Your task to perform on an android device: make emails show in primary in the gmail app Image 0: 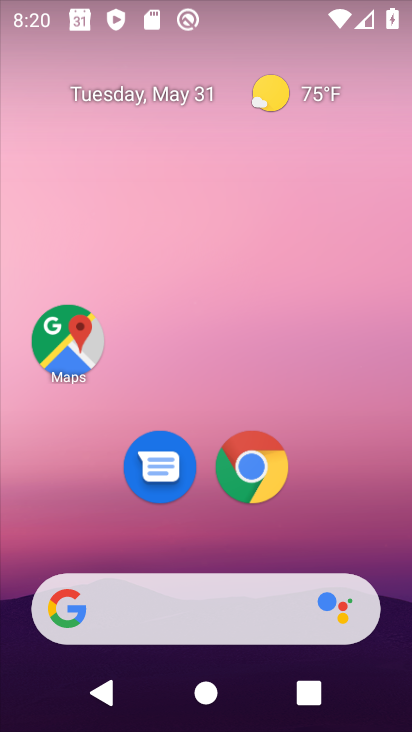
Step 0: drag from (205, 537) to (231, 102)
Your task to perform on an android device: make emails show in primary in the gmail app Image 1: 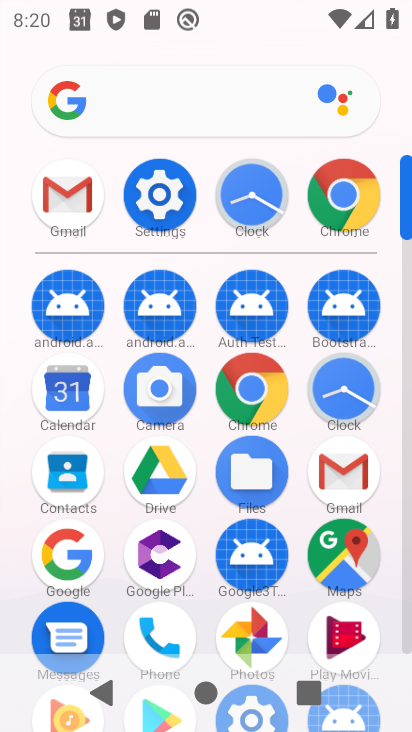
Step 1: click (350, 470)
Your task to perform on an android device: make emails show in primary in the gmail app Image 2: 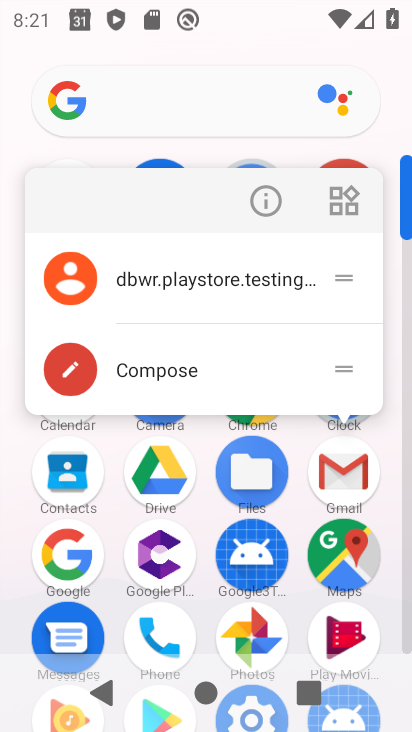
Step 2: click (259, 196)
Your task to perform on an android device: make emails show in primary in the gmail app Image 3: 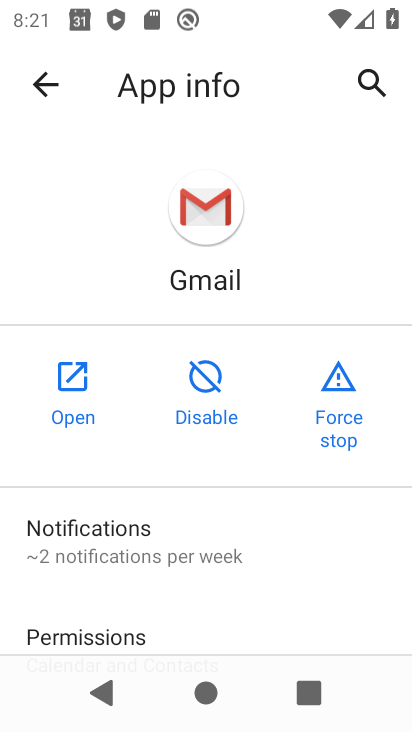
Step 3: click (91, 400)
Your task to perform on an android device: make emails show in primary in the gmail app Image 4: 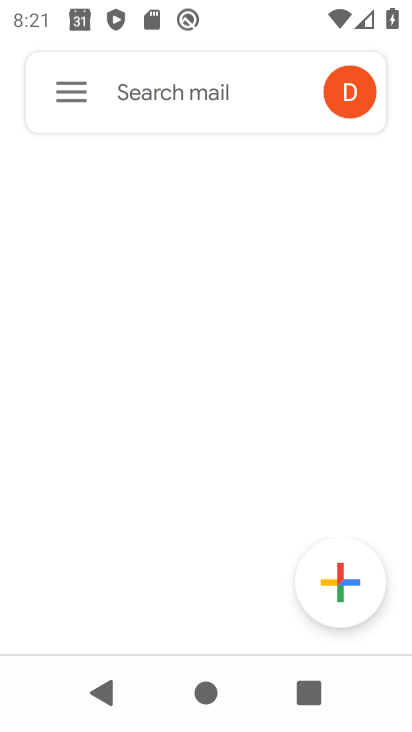
Step 4: click (68, 97)
Your task to perform on an android device: make emails show in primary in the gmail app Image 5: 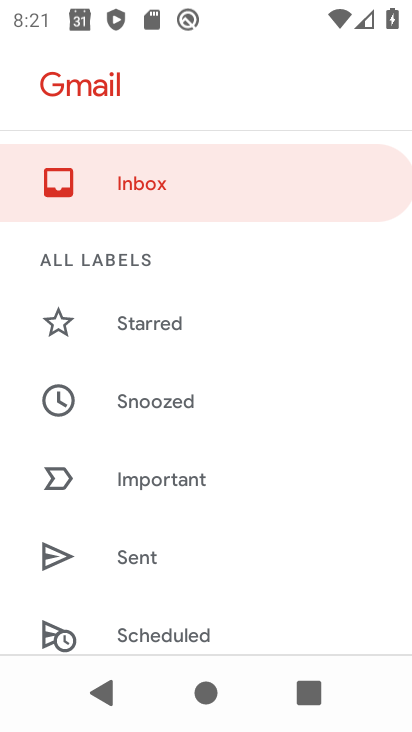
Step 5: drag from (195, 575) to (239, 152)
Your task to perform on an android device: make emails show in primary in the gmail app Image 6: 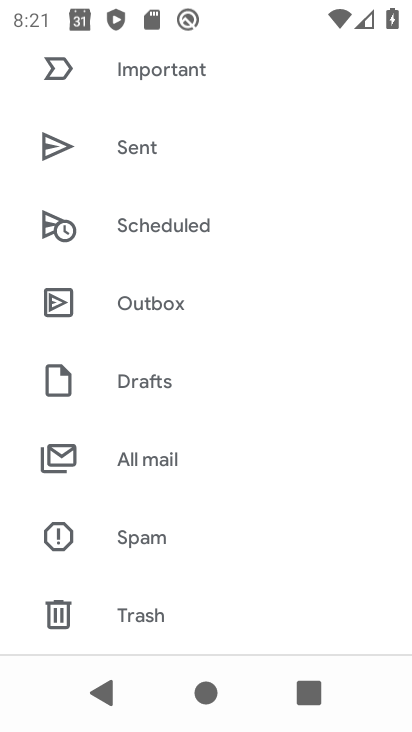
Step 6: drag from (142, 572) to (215, 93)
Your task to perform on an android device: make emails show in primary in the gmail app Image 7: 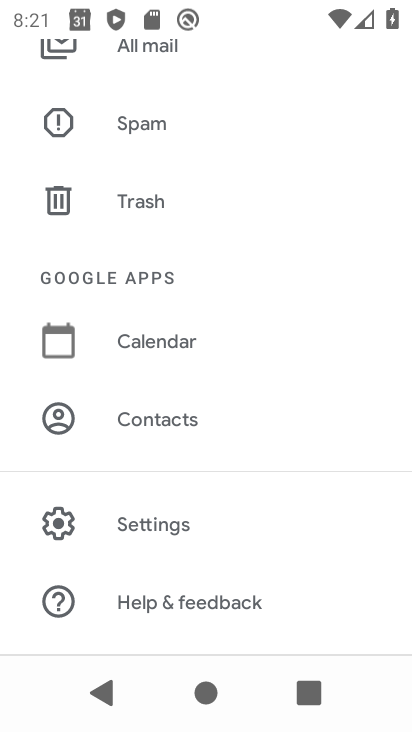
Step 7: drag from (208, 312) to (239, 594)
Your task to perform on an android device: make emails show in primary in the gmail app Image 8: 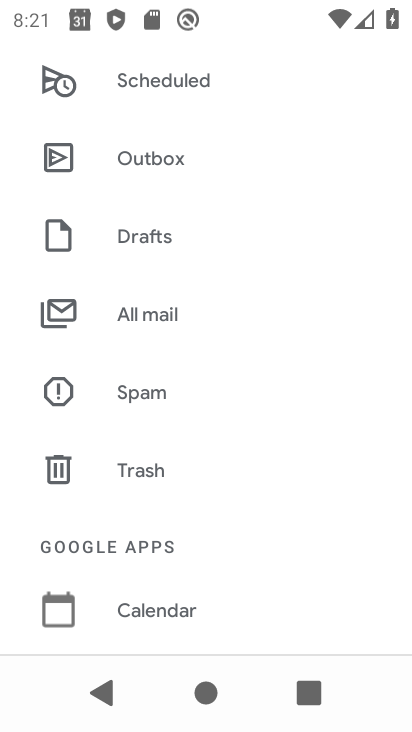
Step 8: drag from (174, 183) to (275, 724)
Your task to perform on an android device: make emails show in primary in the gmail app Image 9: 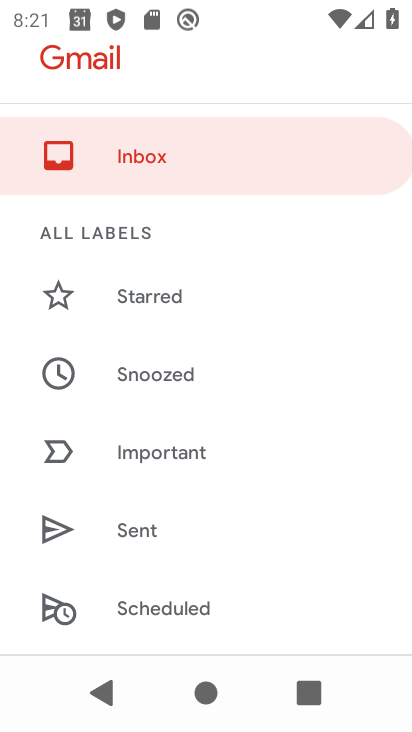
Step 9: drag from (188, 247) to (312, 669)
Your task to perform on an android device: make emails show in primary in the gmail app Image 10: 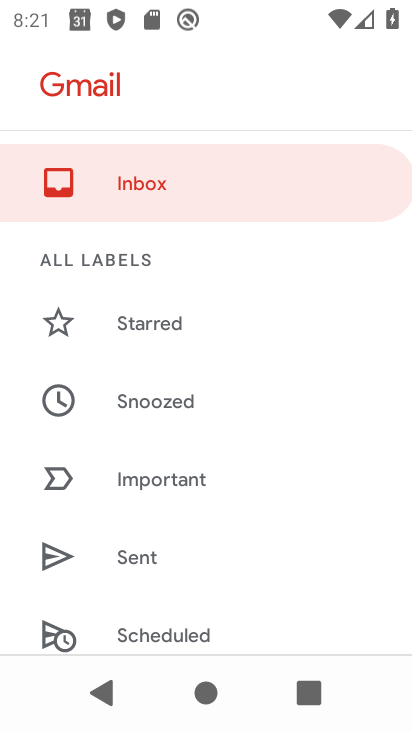
Step 10: click (105, 190)
Your task to perform on an android device: make emails show in primary in the gmail app Image 11: 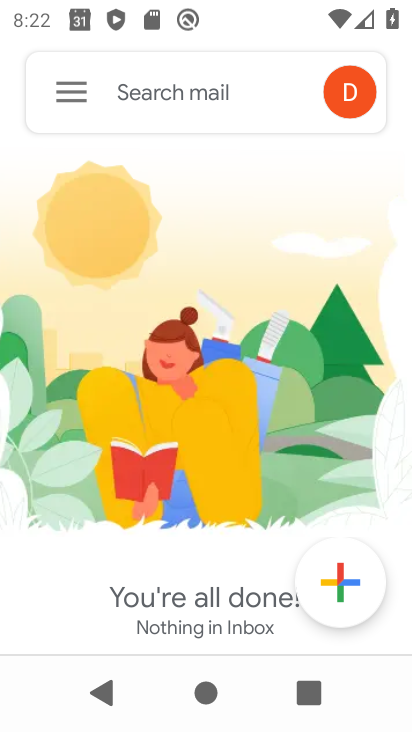
Step 11: click (63, 106)
Your task to perform on an android device: make emails show in primary in the gmail app Image 12: 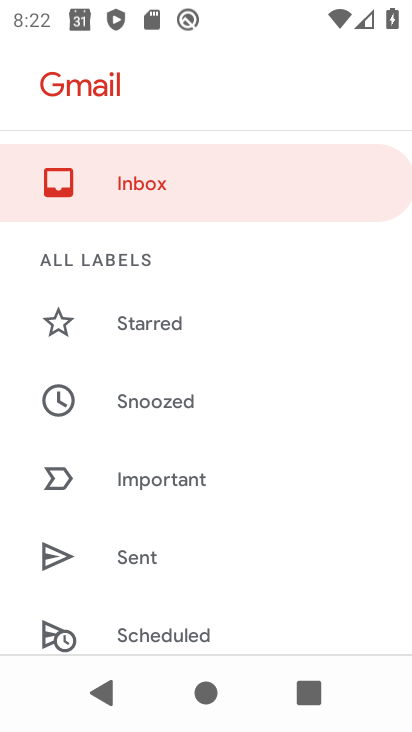
Step 12: click (105, 193)
Your task to perform on an android device: make emails show in primary in the gmail app Image 13: 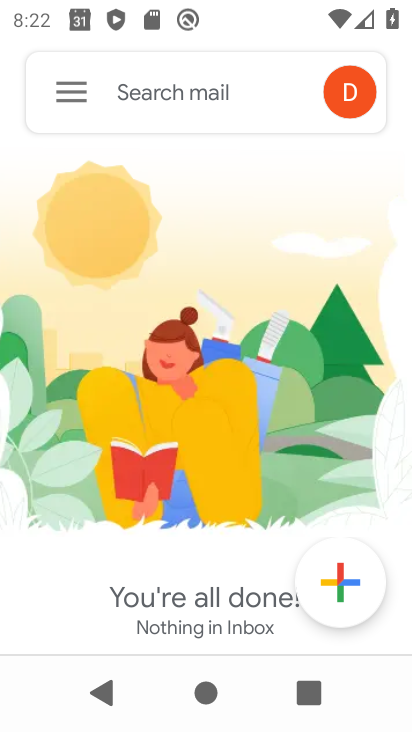
Step 13: task complete